Your task to perform on an android device: change notification settings in the gmail app Image 0: 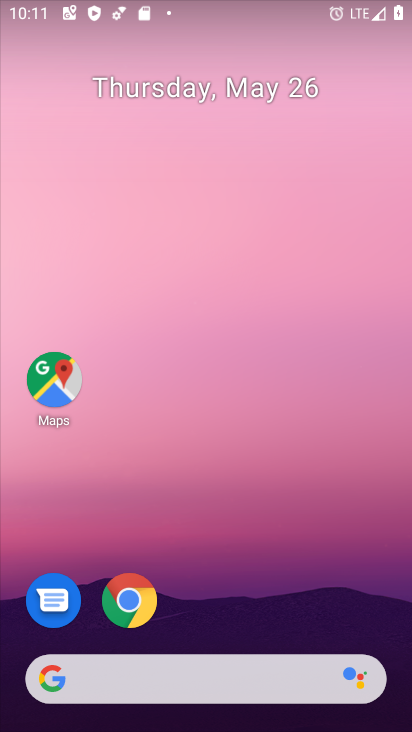
Step 0: drag from (266, 591) to (316, 174)
Your task to perform on an android device: change notification settings in the gmail app Image 1: 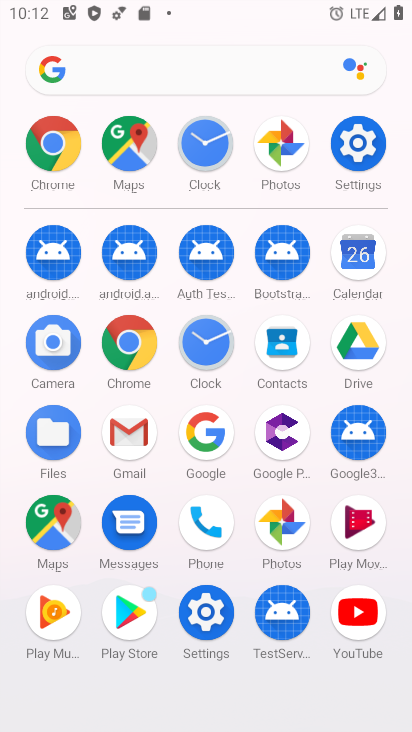
Step 1: click (131, 426)
Your task to perform on an android device: change notification settings in the gmail app Image 2: 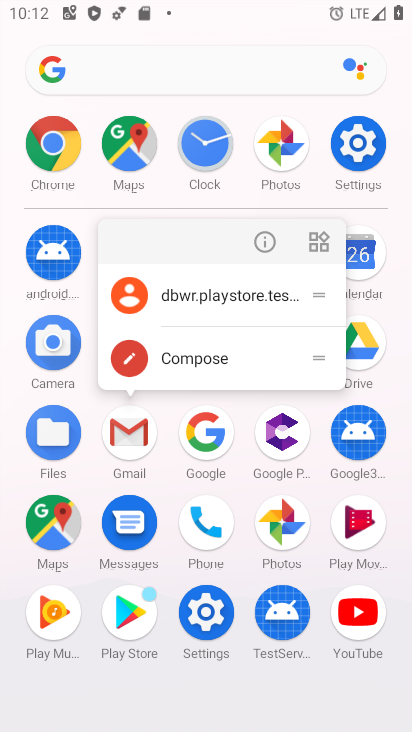
Step 2: click (132, 428)
Your task to perform on an android device: change notification settings in the gmail app Image 3: 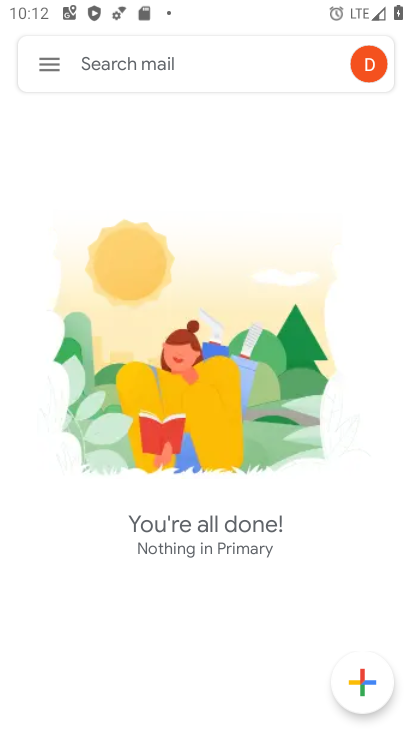
Step 3: click (56, 64)
Your task to perform on an android device: change notification settings in the gmail app Image 4: 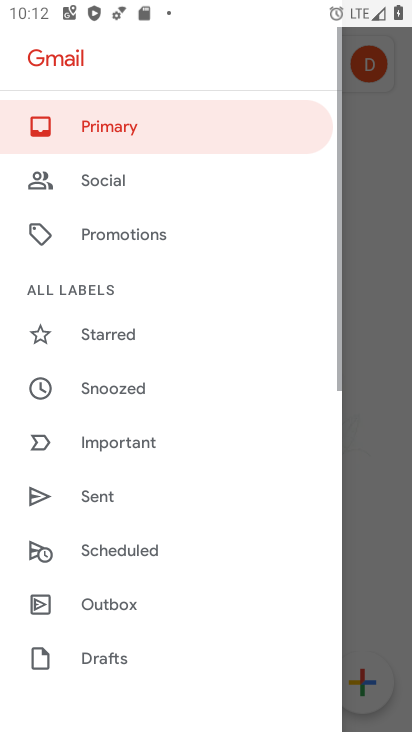
Step 4: drag from (177, 648) to (208, 192)
Your task to perform on an android device: change notification settings in the gmail app Image 5: 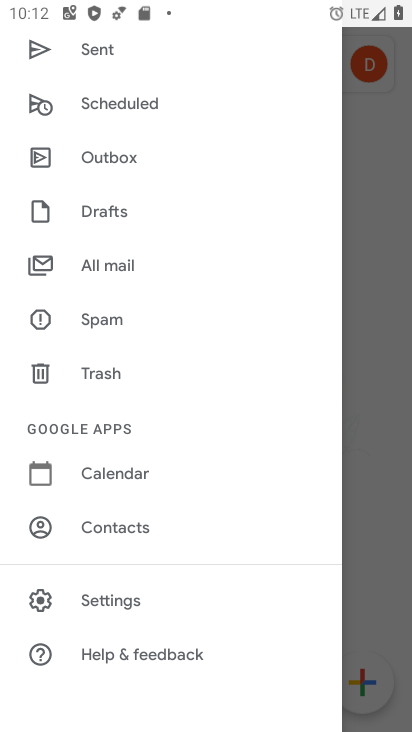
Step 5: click (105, 587)
Your task to perform on an android device: change notification settings in the gmail app Image 6: 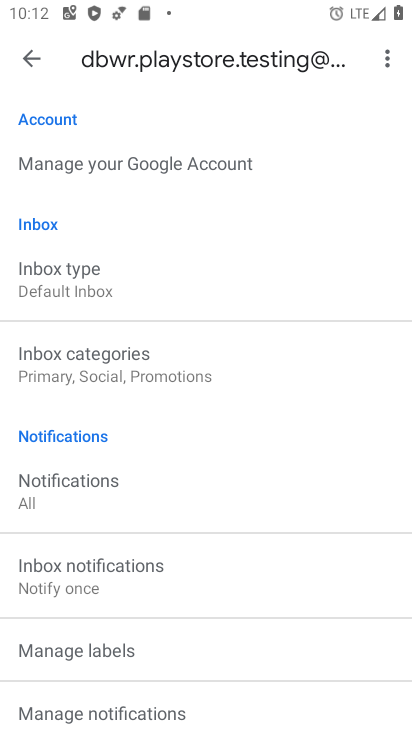
Step 6: click (127, 713)
Your task to perform on an android device: change notification settings in the gmail app Image 7: 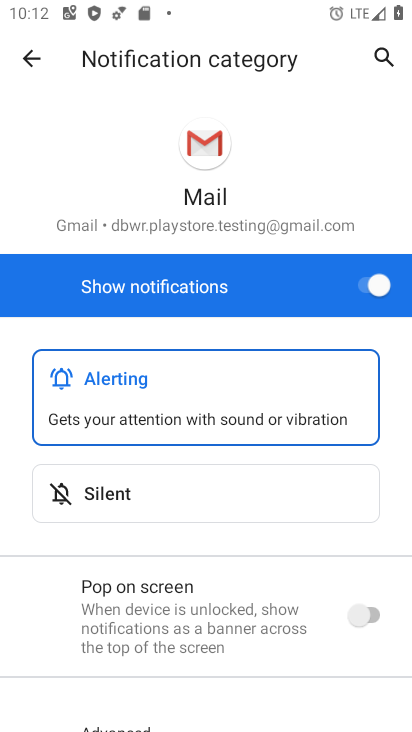
Step 7: click (370, 273)
Your task to perform on an android device: change notification settings in the gmail app Image 8: 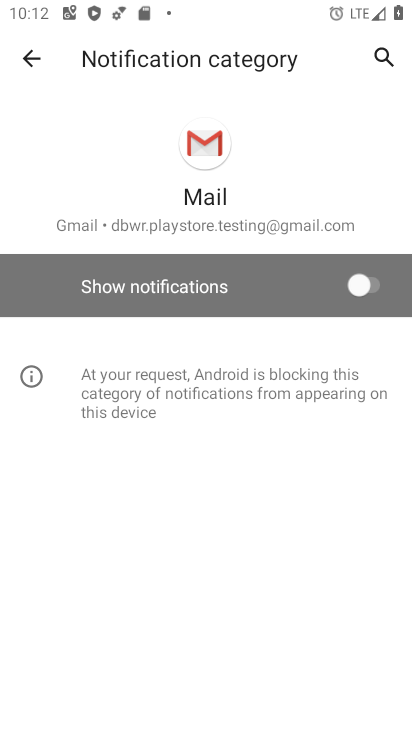
Step 8: task complete